Your task to perform on an android device: Do I have any events this weekend? Image 0: 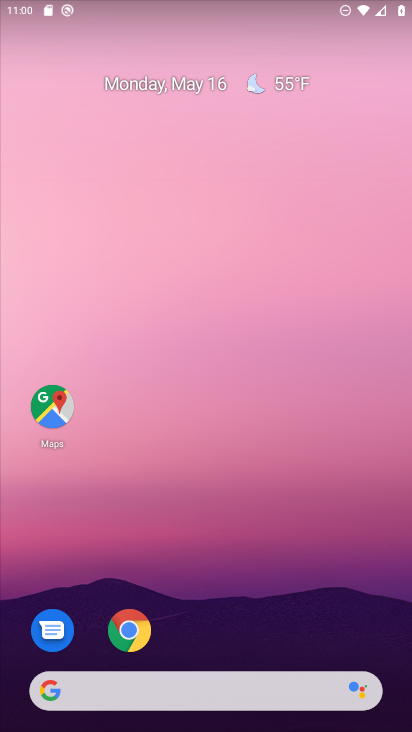
Step 0: drag from (207, 644) to (177, 196)
Your task to perform on an android device: Do I have any events this weekend? Image 1: 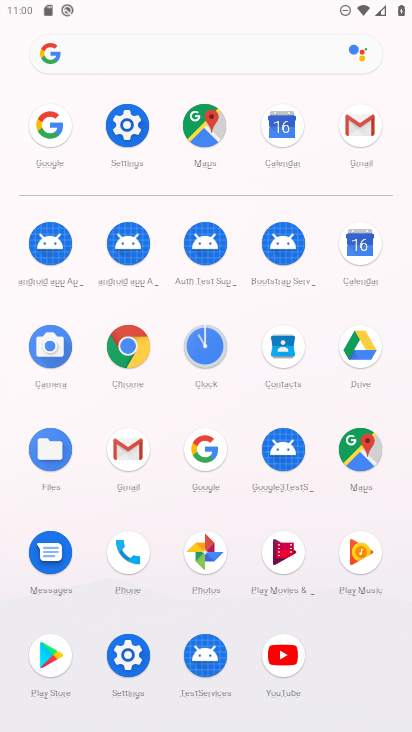
Step 1: click (277, 119)
Your task to perform on an android device: Do I have any events this weekend? Image 2: 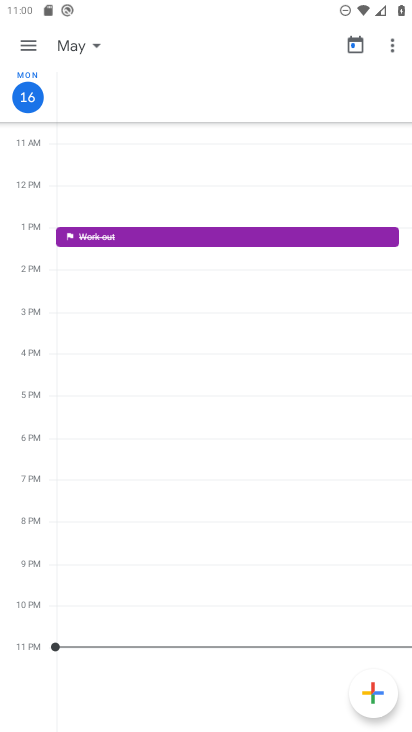
Step 2: click (87, 43)
Your task to perform on an android device: Do I have any events this weekend? Image 3: 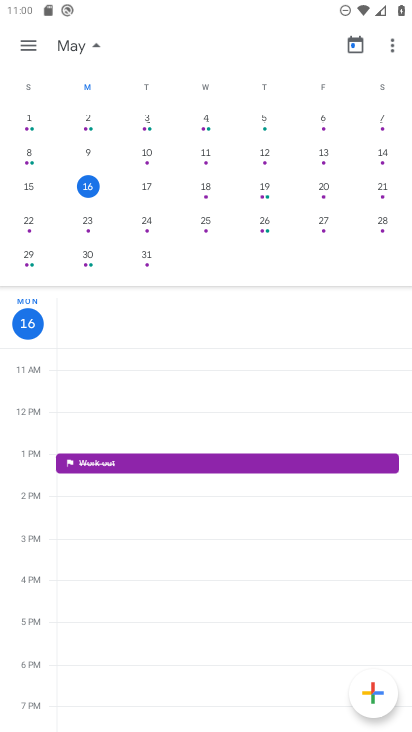
Step 3: click (88, 168)
Your task to perform on an android device: Do I have any events this weekend? Image 4: 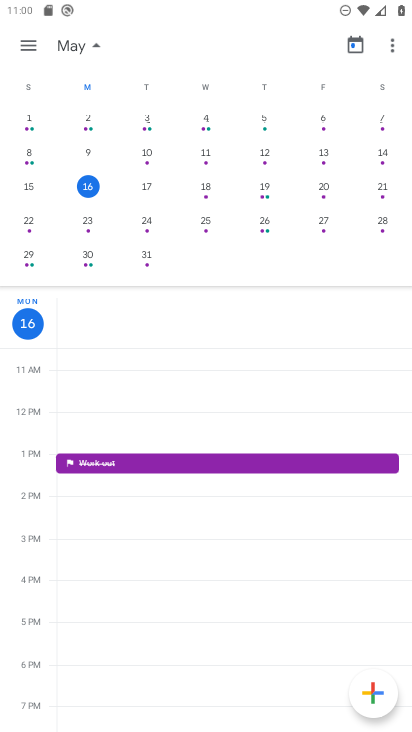
Step 4: click (138, 188)
Your task to perform on an android device: Do I have any events this weekend? Image 5: 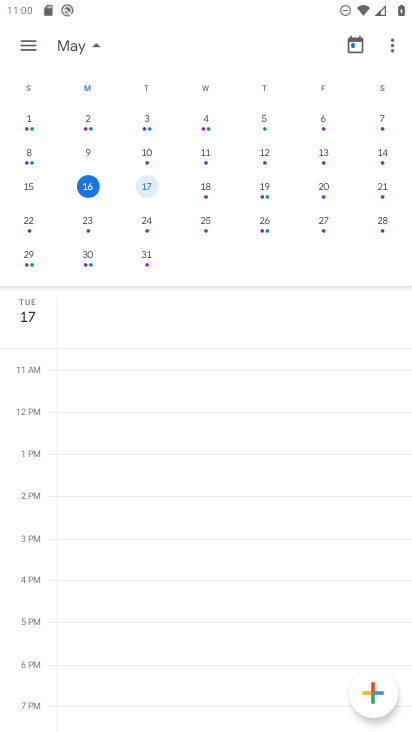
Step 5: click (198, 181)
Your task to perform on an android device: Do I have any events this weekend? Image 6: 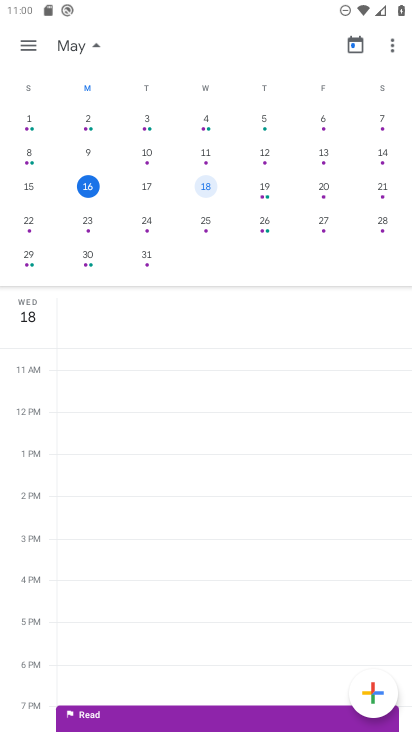
Step 6: task complete